Your task to perform on an android device: empty trash in the gmail app Image 0: 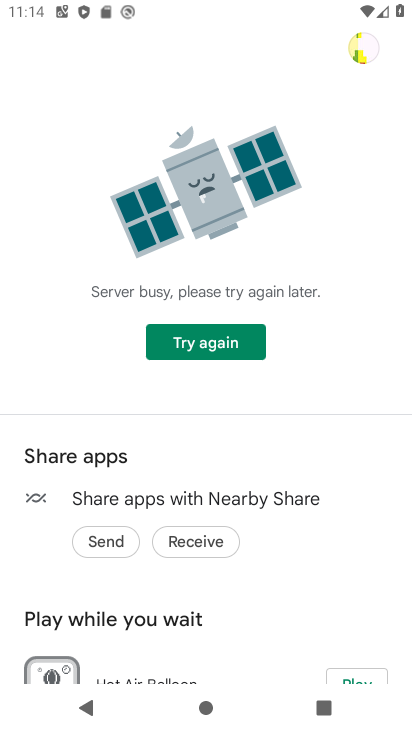
Step 0: press home button
Your task to perform on an android device: empty trash in the gmail app Image 1: 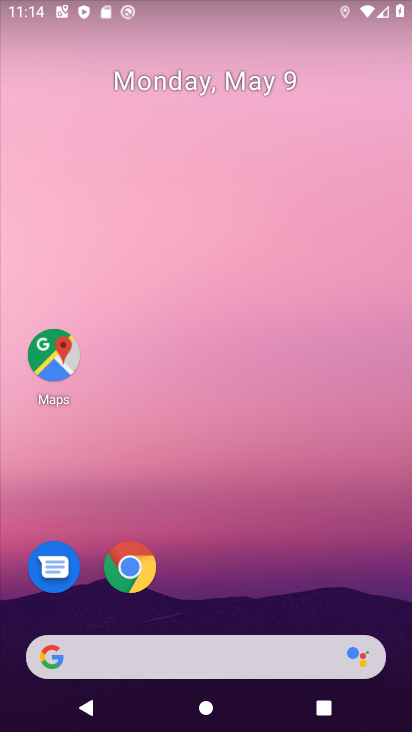
Step 1: drag from (226, 520) to (285, 51)
Your task to perform on an android device: empty trash in the gmail app Image 2: 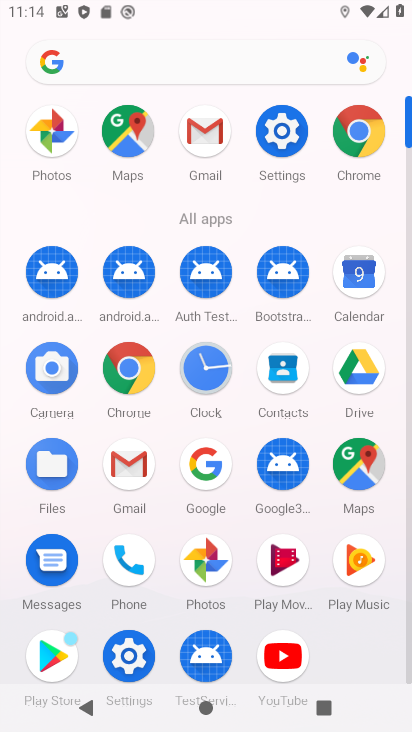
Step 2: click (136, 473)
Your task to perform on an android device: empty trash in the gmail app Image 3: 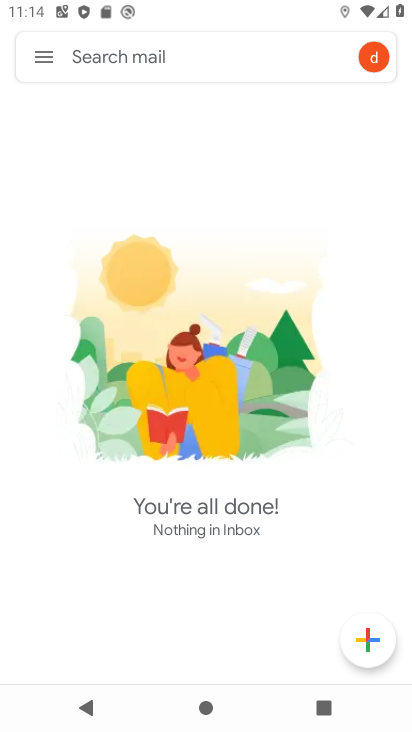
Step 3: click (46, 63)
Your task to perform on an android device: empty trash in the gmail app Image 4: 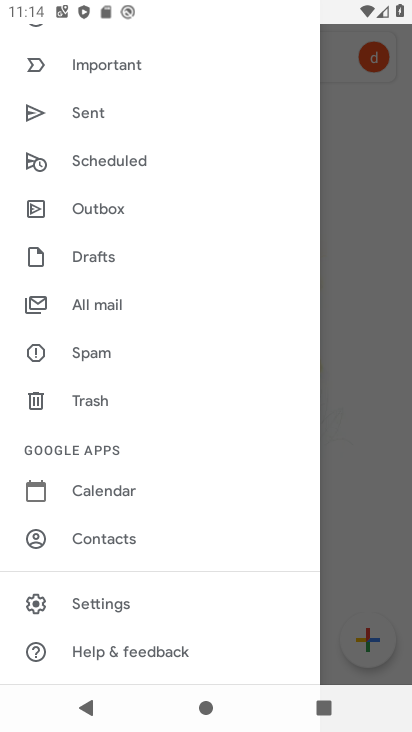
Step 4: click (87, 403)
Your task to perform on an android device: empty trash in the gmail app Image 5: 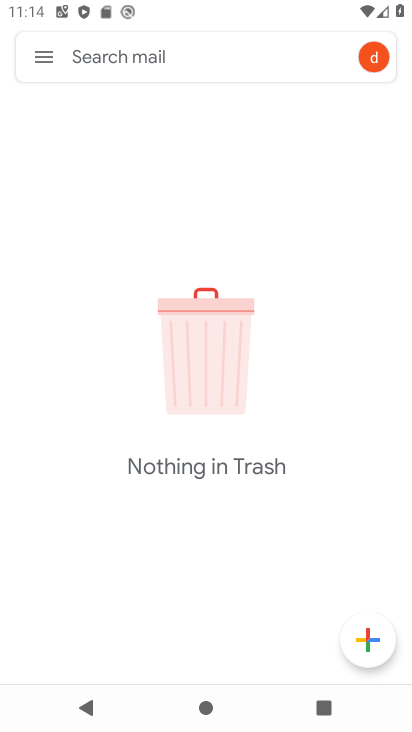
Step 5: task complete